Your task to perform on an android device: Go to network settings Image 0: 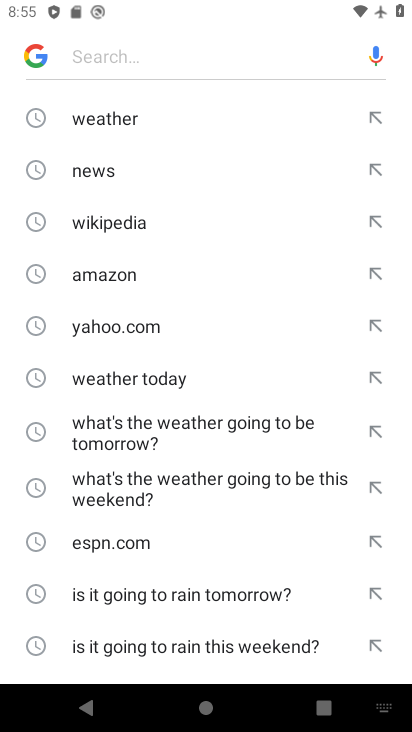
Step 0: press home button
Your task to perform on an android device: Go to network settings Image 1: 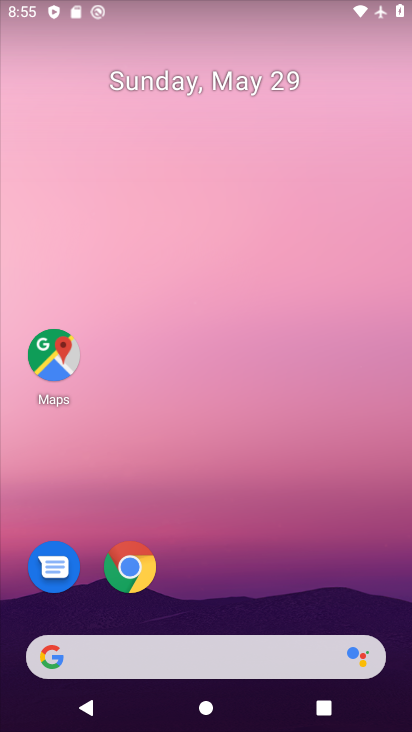
Step 1: drag from (374, 598) to (368, 83)
Your task to perform on an android device: Go to network settings Image 2: 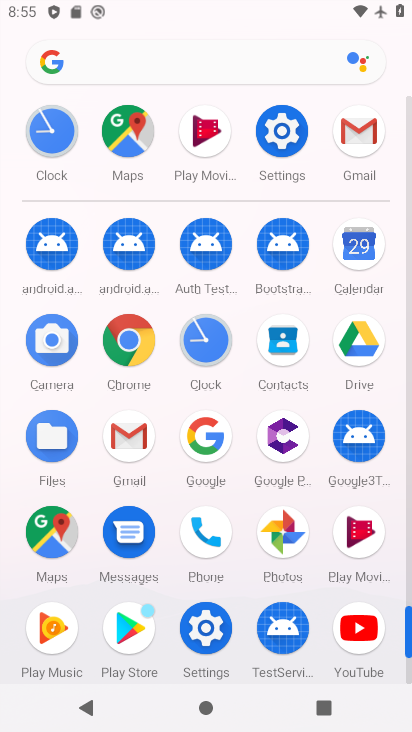
Step 2: click (410, 671)
Your task to perform on an android device: Go to network settings Image 3: 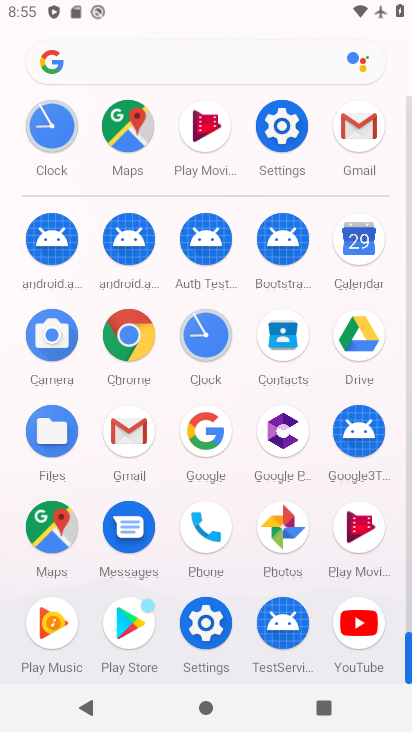
Step 3: click (208, 621)
Your task to perform on an android device: Go to network settings Image 4: 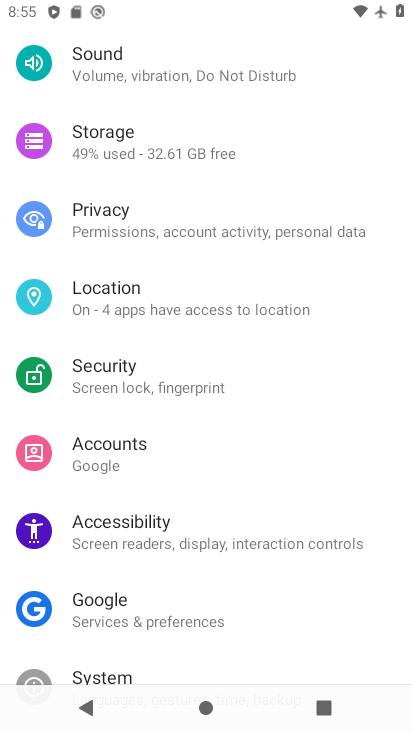
Step 4: drag from (286, 127) to (343, 520)
Your task to perform on an android device: Go to network settings Image 5: 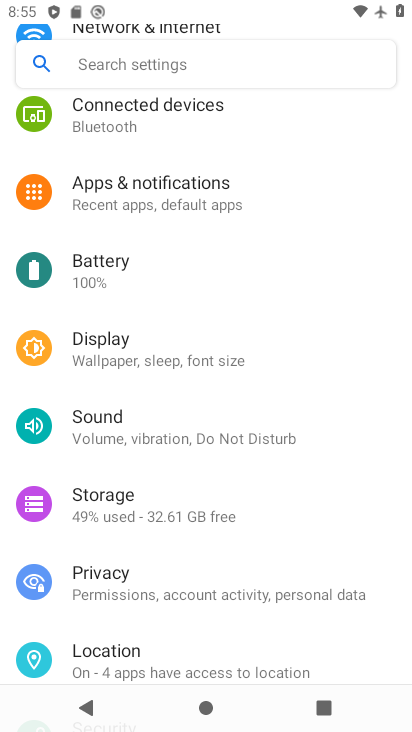
Step 5: drag from (331, 193) to (327, 510)
Your task to perform on an android device: Go to network settings Image 6: 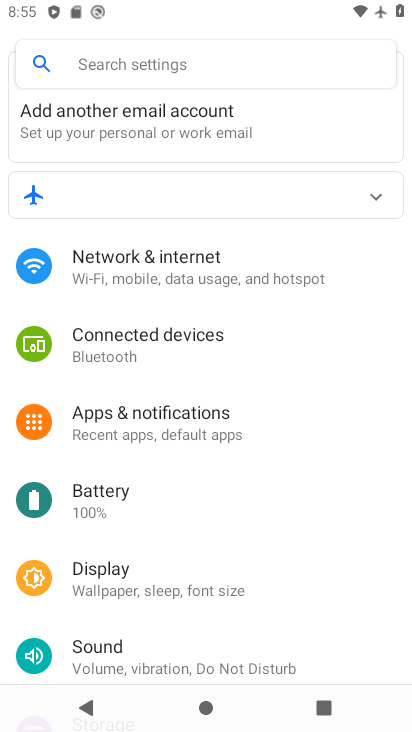
Step 6: click (136, 268)
Your task to perform on an android device: Go to network settings Image 7: 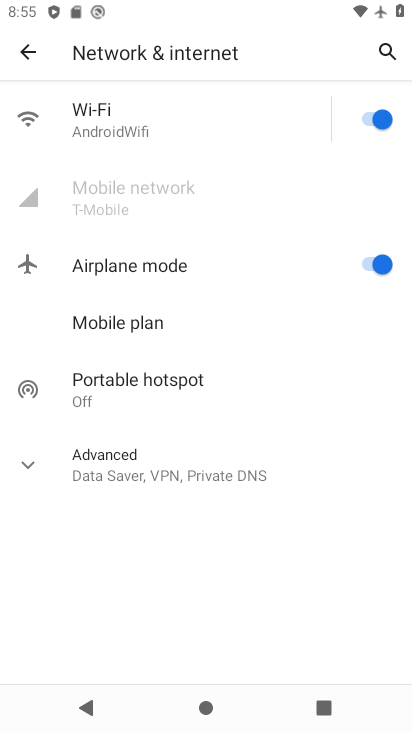
Step 7: click (34, 471)
Your task to perform on an android device: Go to network settings Image 8: 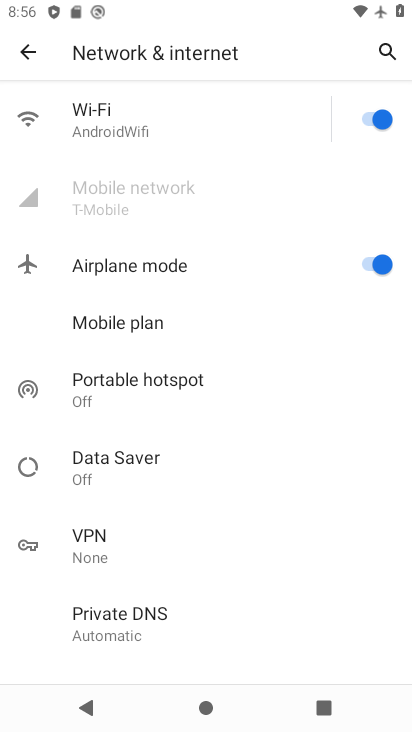
Step 8: task complete